Your task to perform on an android device: set the timer Image 0: 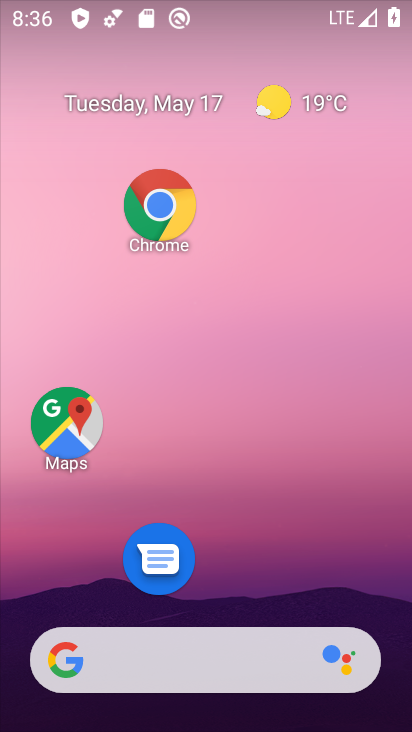
Step 0: drag from (242, 604) to (313, 82)
Your task to perform on an android device: set the timer Image 1: 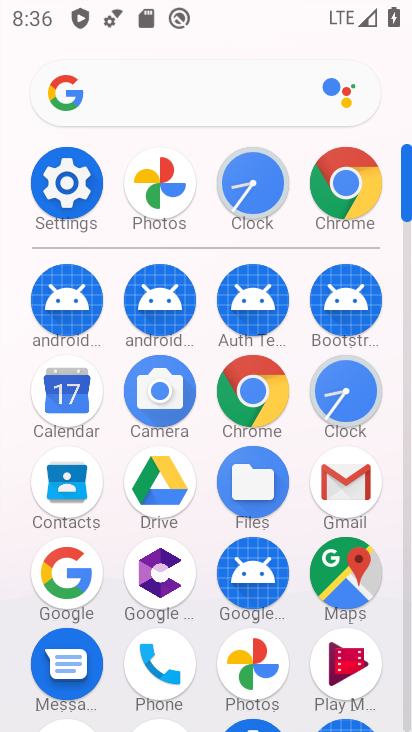
Step 1: click (271, 184)
Your task to perform on an android device: set the timer Image 2: 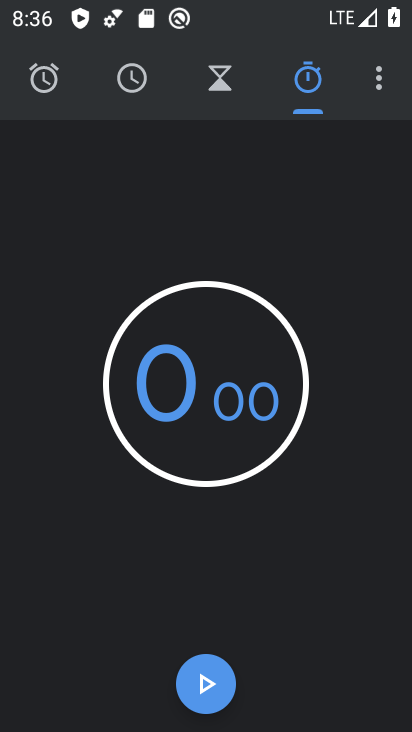
Step 2: click (377, 79)
Your task to perform on an android device: set the timer Image 3: 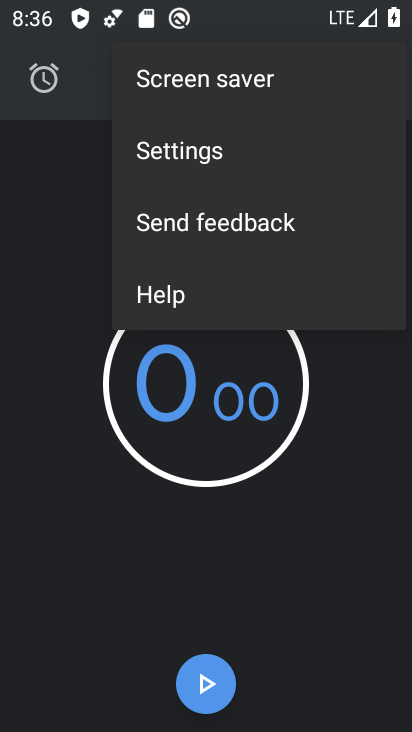
Step 3: click (237, 153)
Your task to perform on an android device: set the timer Image 4: 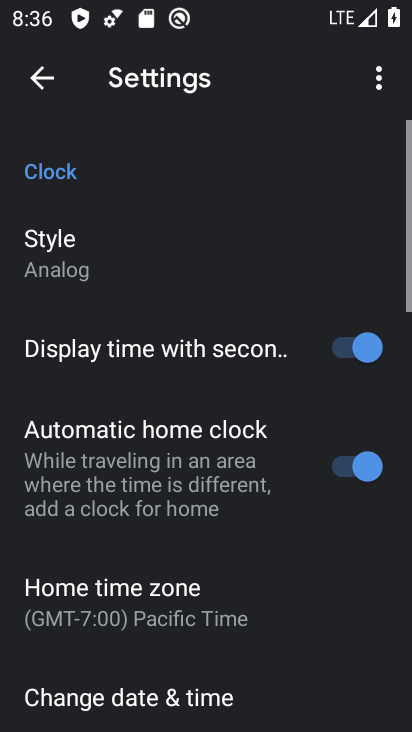
Step 4: drag from (242, 480) to (326, 102)
Your task to perform on an android device: set the timer Image 5: 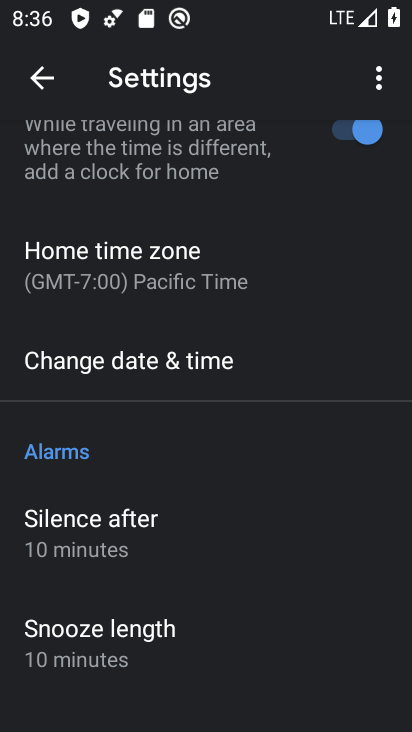
Step 5: click (222, 111)
Your task to perform on an android device: set the timer Image 6: 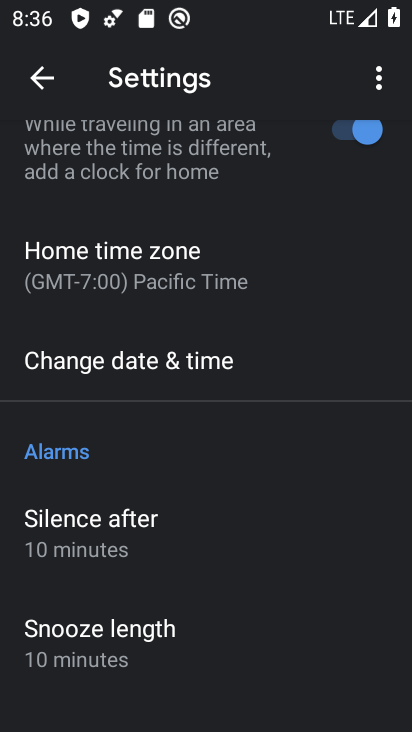
Step 6: drag from (181, 587) to (236, 171)
Your task to perform on an android device: set the timer Image 7: 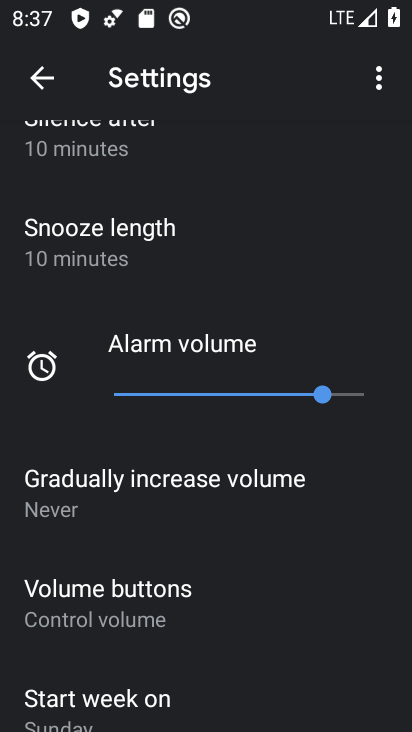
Step 7: drag from (208, 543) to (270, 97)
Your task to perform on an android device: set the timer Image 8: 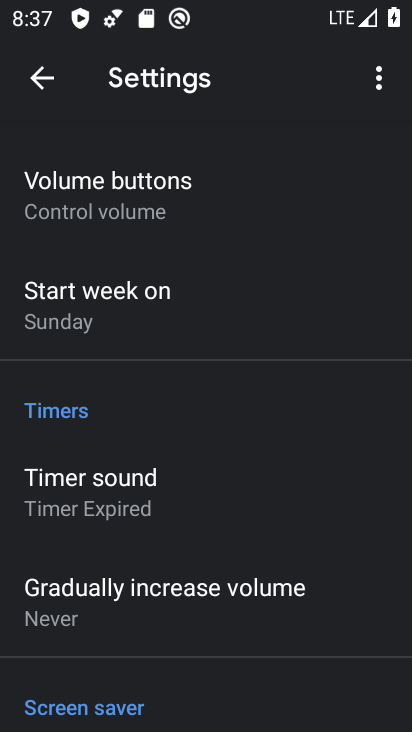
Step 8: click (147, 486)
Your task to perform on an android device: set the timer Image 9: 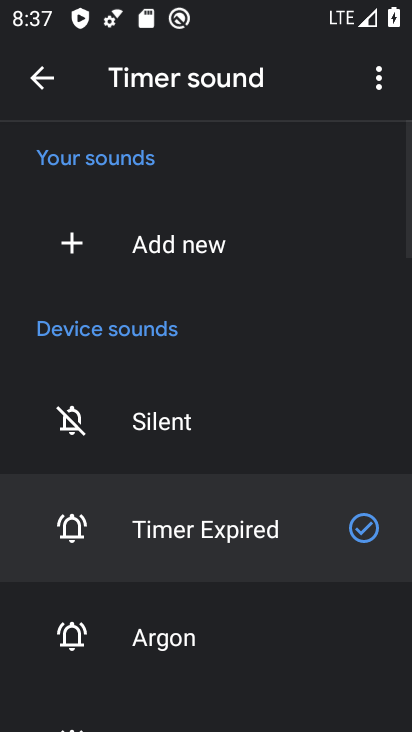
Step 9: click (42, 104)
Your task to perform on an android device: set the timer Image 10: 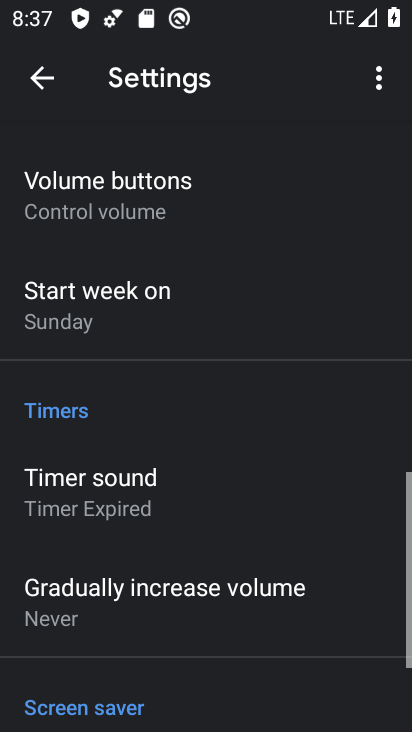
Step 10: click (41, 101)
Your task to perform on an android device: set the timer Image 11: 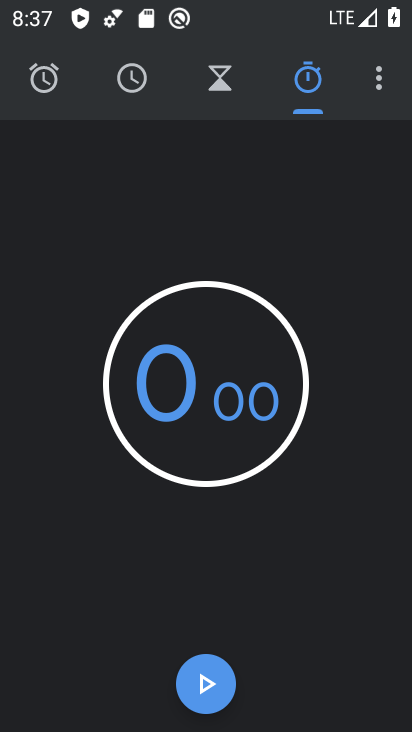
Step 11: click (193, 73)
Your task to perform on an android device: set the timer Image 12: 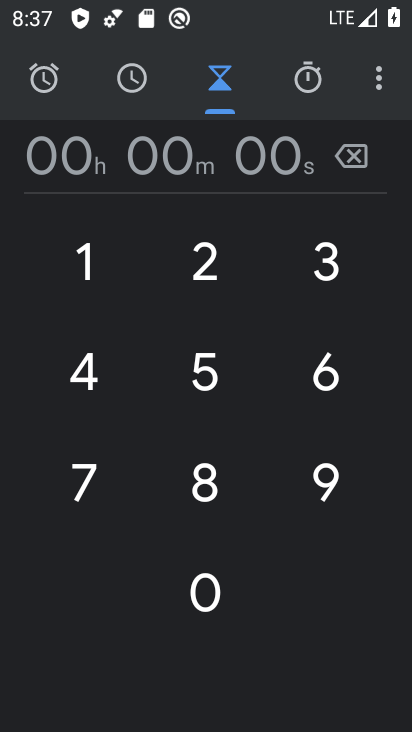
Step 12: click (209, 273)
Your task to perform on an android device: set the timer Image 13: 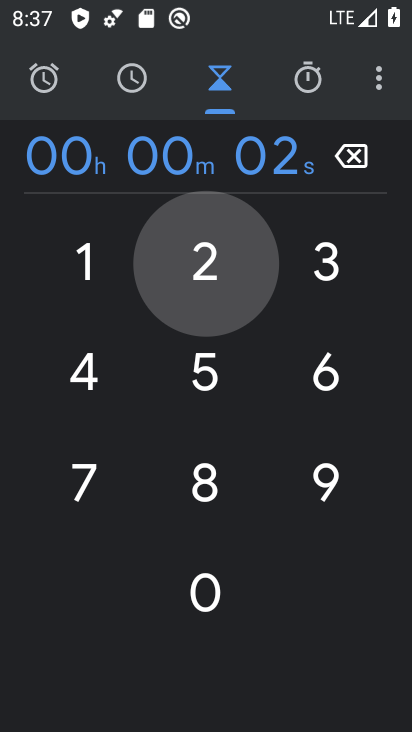
Step 13: click (314, 263)
Your task to perform on an android device: set the timer Image 14: 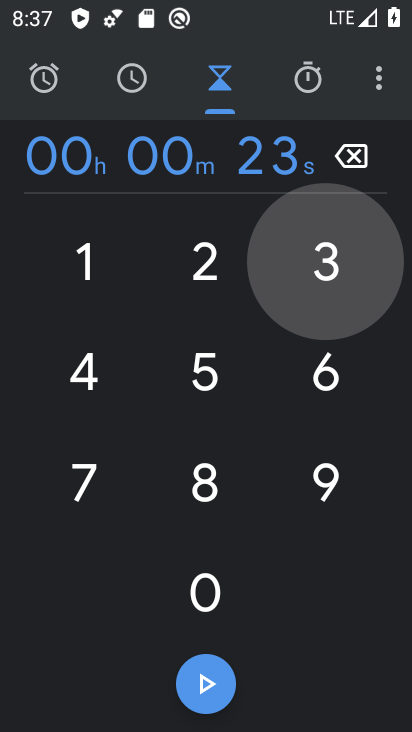
Step 14: click (219, 331)
Your task to perform on an android device: set the timer Image 15: 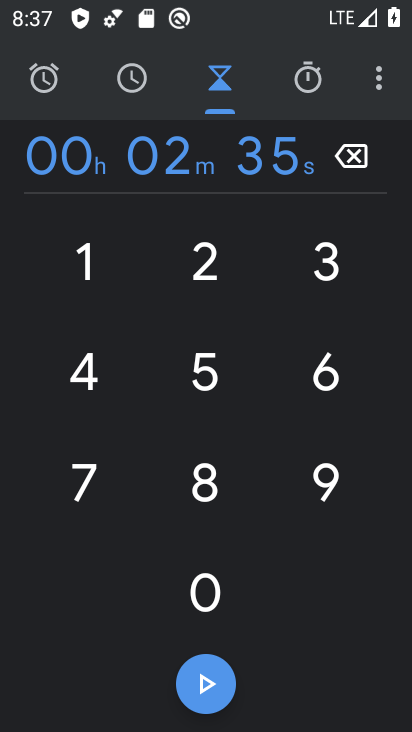
Step 15: task complete